Your task to perform on an android device: set an alarm Image 0: 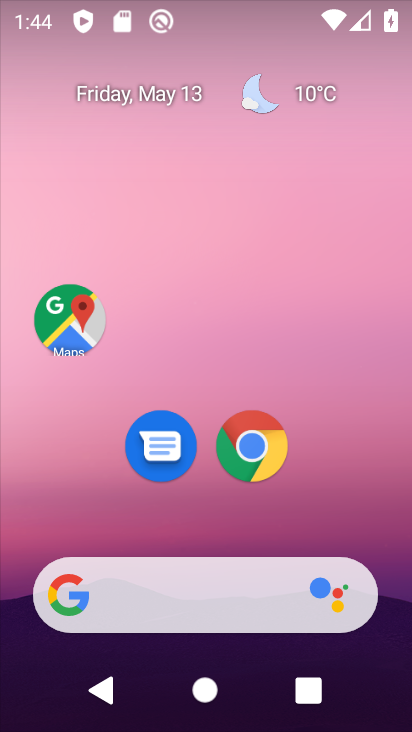
Step 0: drag from (249, 523) to (289, 16)
Your task to perform on an android device: set an alarm Image 1: 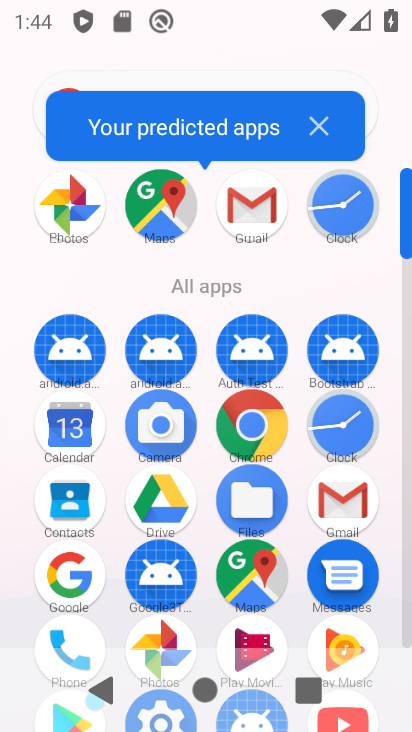
Step 1: click (335, 416)
Your task to perform on an android device: set an alarm Image 2: 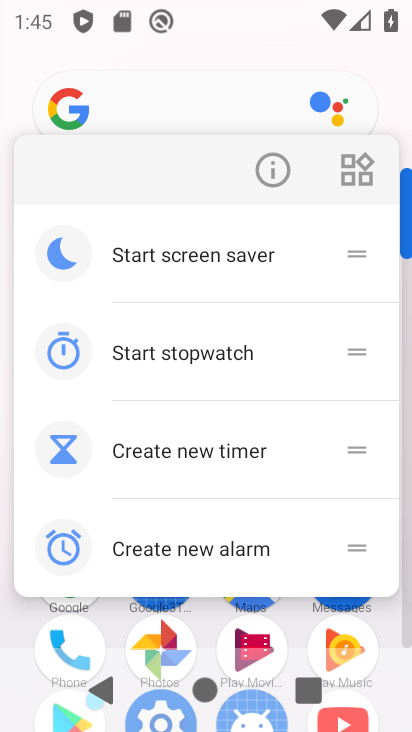
Step 2: drag from (260, 666) to (256, 557)
Your task to perform on an android device: set an alarm Image 3: 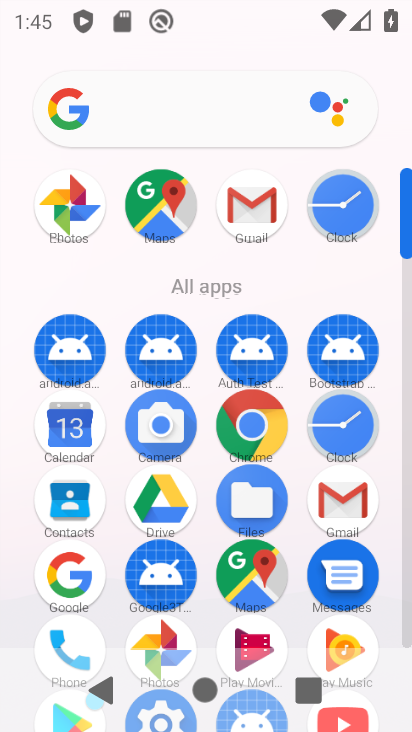
Step 3: click (355, 423)
Your task to perform on an android device: set an alarm Image 4: 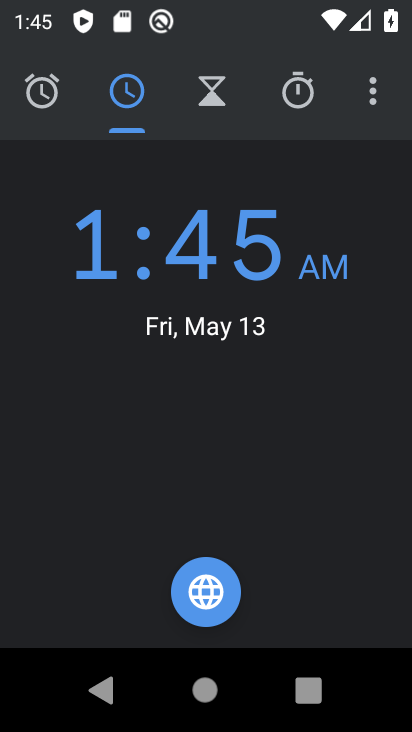
Step 4: click (54, 91)
Your task to perform on an android device: set an alarm Image 5: 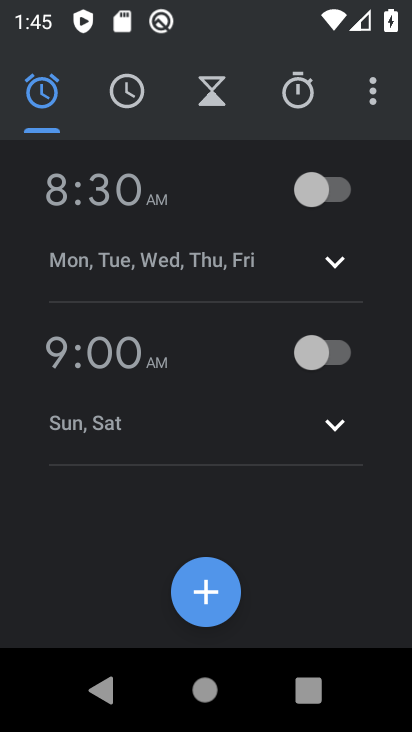
Step 5: click (329, 197)
Your task to perform on an android device: set an alarm Image 6: 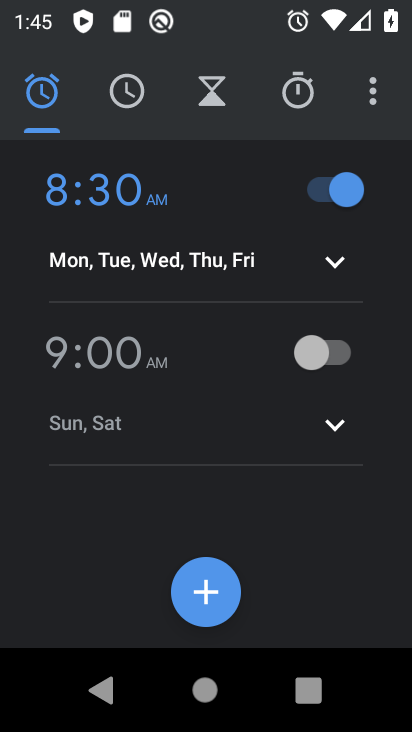
Step 6: task complete